Your task to perform on an android device: turn off data saver in the chrome app Image 0: 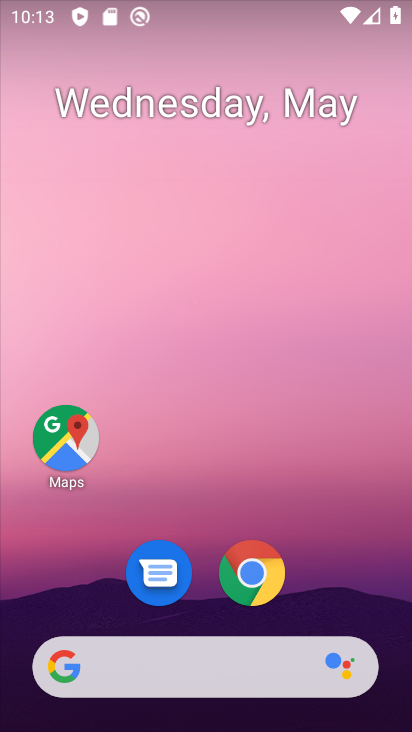
Step 0: drag from (373, 611) to (183, 158)
Your task to perform on an android device: turn off data saver in the chrome app Image 1: 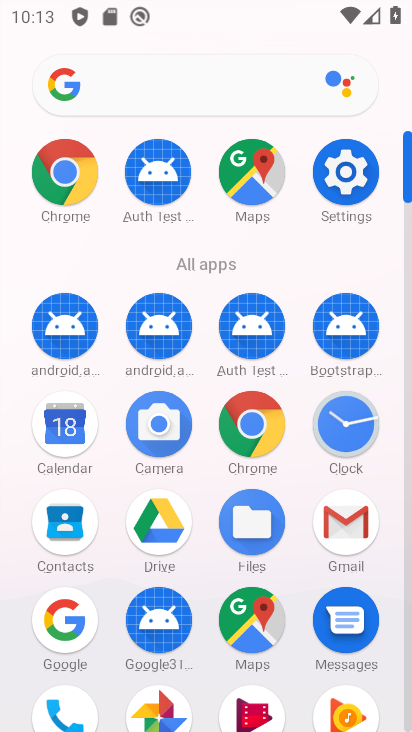
Step 1: click (248, 427)
Your task to perform on an android device: turn off data saver in the chrome app Image 2: 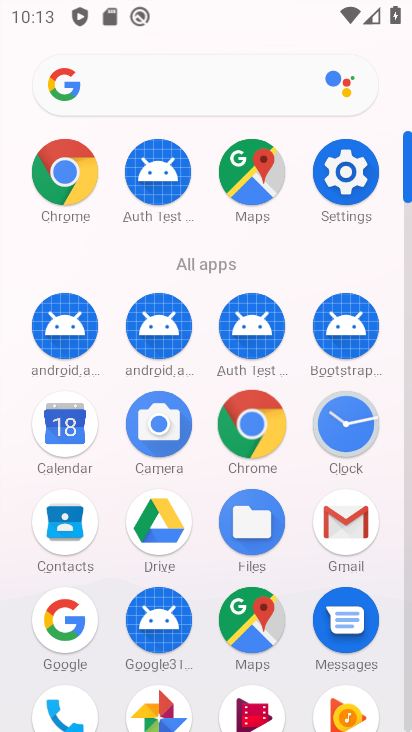
Step 2: click (249, 424)
Your task to perform on an android device: turn off data saver in the chrome app Image 3: 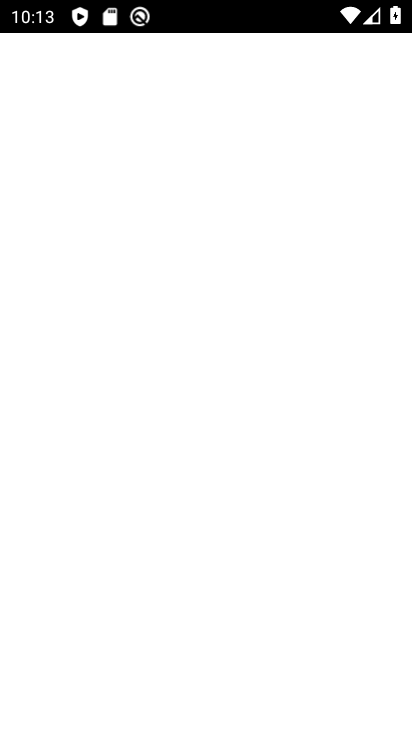
Step 3: click (249, 424)
Your task to perform on an android device: turn off data saver in the chrome app Image 4: 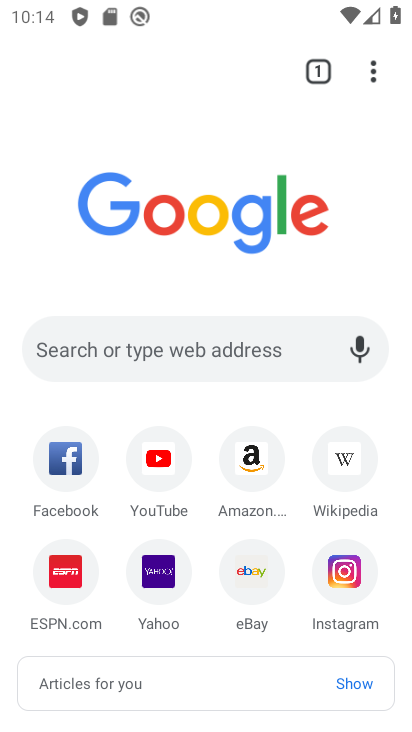
Step 4: click (364, 71)
Your task to perform on an android device: turn off data saver in the chrome app Image 5: 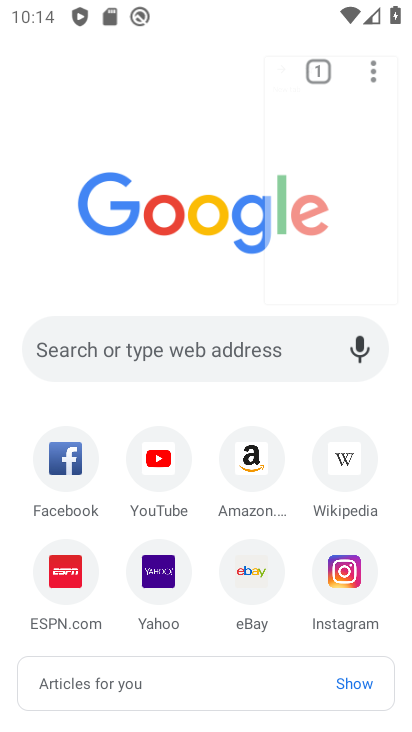
Step 5: click (365, 71)
Your task to perform on an android device: turn off data saver in the chrome app Image 6: 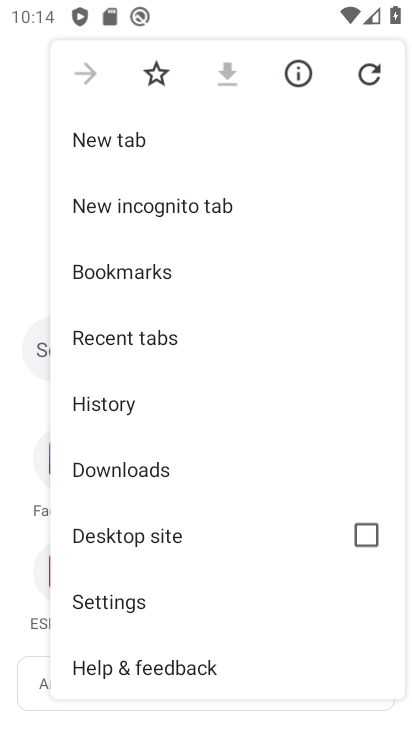
Step 6: click (106, 591)
Your task to perform on an android device: turn off data saver in the chrome app Image 7: 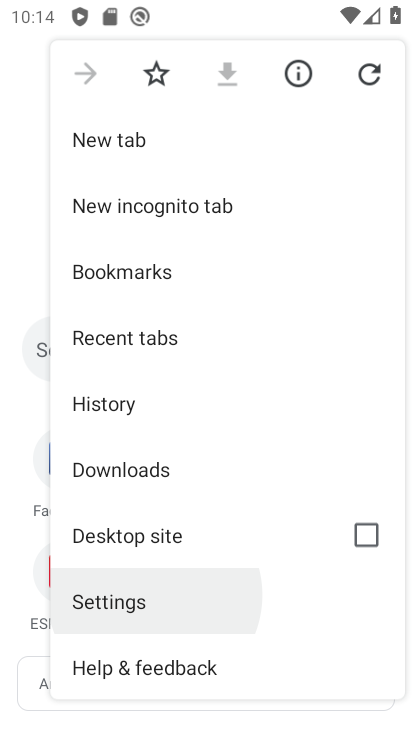
Step 7: click (106, 593)
Your task to perform on an android device: turn off data saver in the chrome app Image 8: 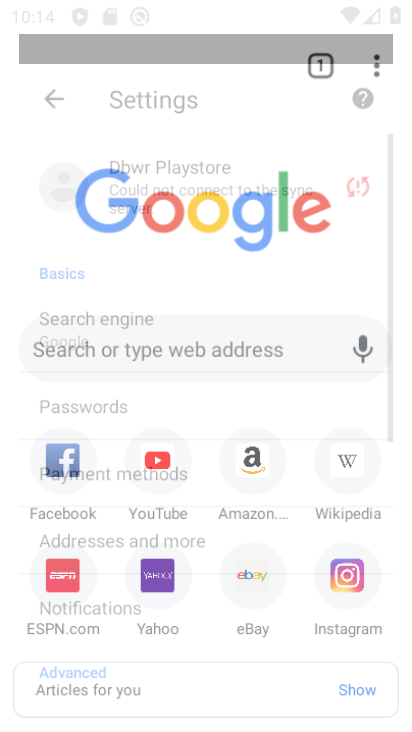
Step 8: click (103, 596)
Your task to perform on an android device: turn off data saver in the chrome app Image 9: 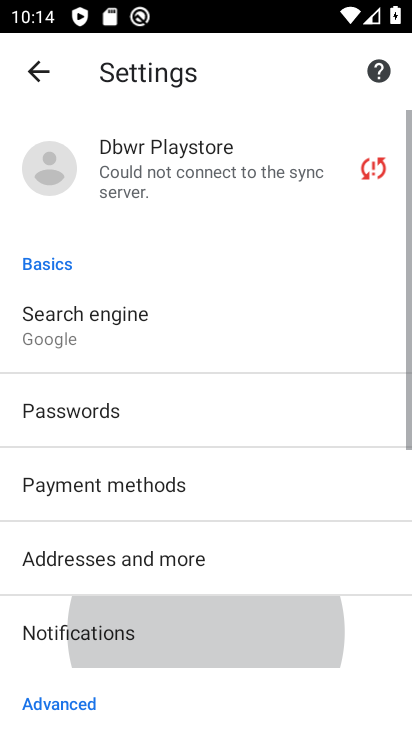
Step 9: click (102, 596)
Your task to perform on an android device: turn off data saver in the chrome app Image 10: 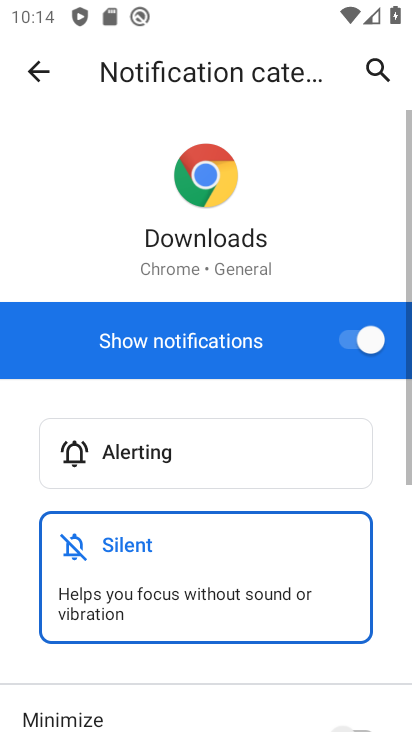
Step 10: click (38, 71)
Your task to perform on an android device: turn off data saver in the chrome app Image 11: 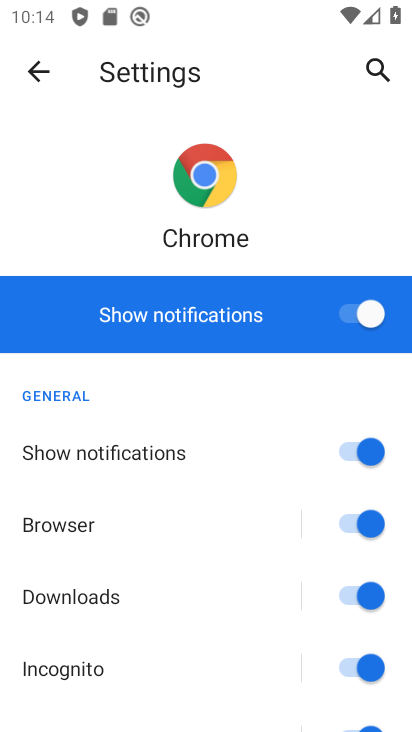
Step 11: click (37, 77)
Your task to perform on an android device: turn off data saver in the chrome app Image 12: 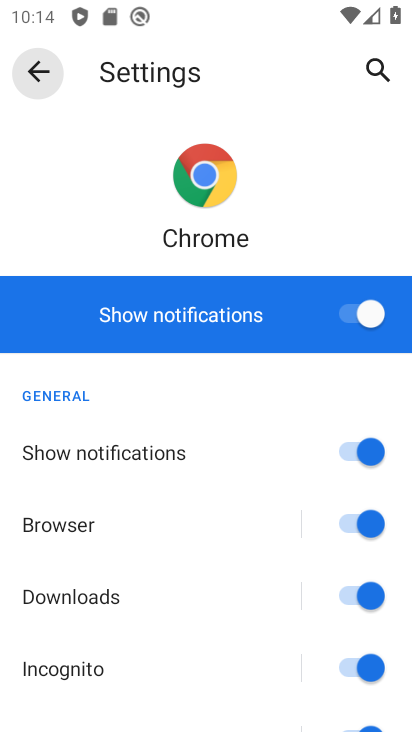
Step 12: click (37, 77)
Your task to perform on an android device: turn off data saver in the chrome app Image 13: 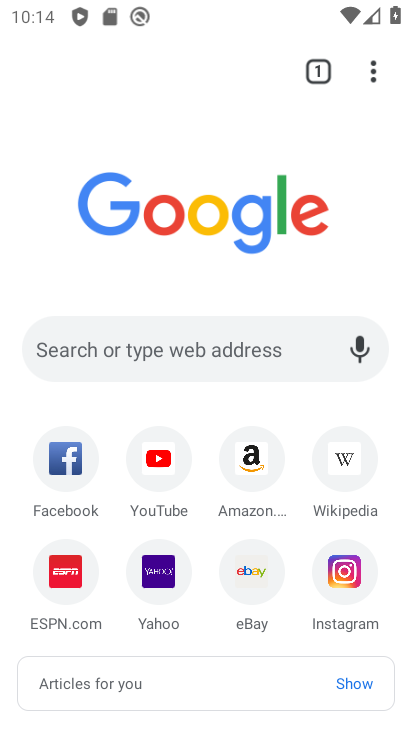
Step 13: drag from (188, 221) to (185, 1)
Your task to perform on an android device: turn off data saver in the chrome app Image 14: 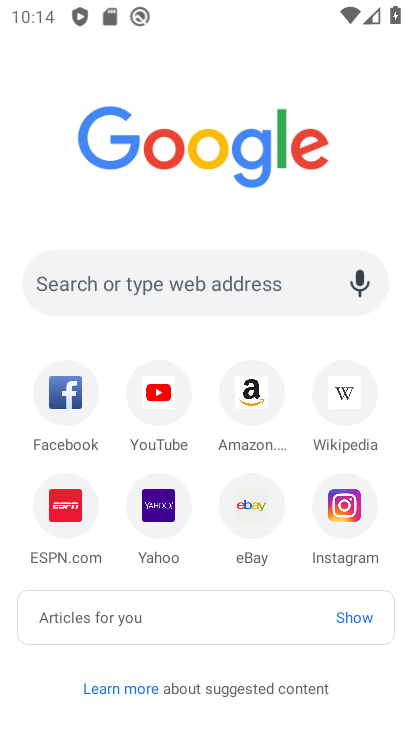
Step 14: drag from (222, 414) to (207, 205)
Your task to perform on an android device: turn off data saver in the chrome app Image 15: 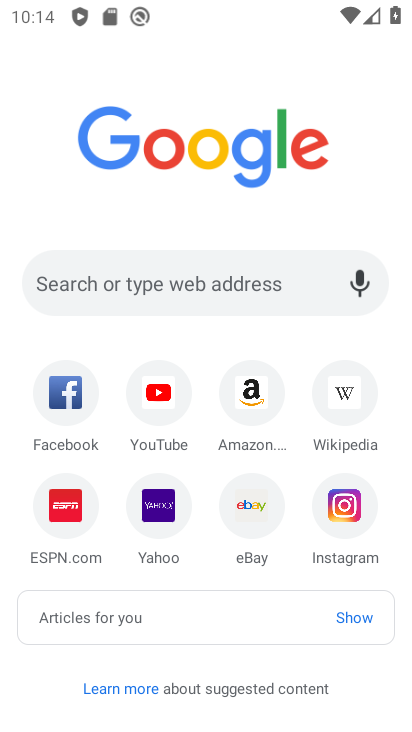
Step 15: drag from (201, 428) to (211, 124)
Your task to perform on an android device: turn off data saver in the chrome app Image 16: 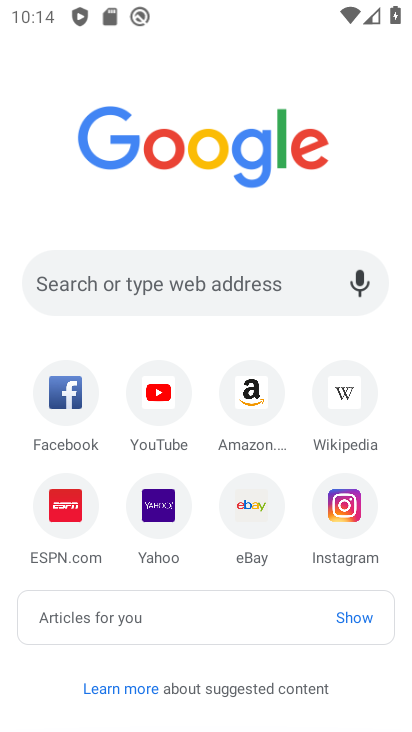
Step 16: drag from (249, 419) to (231, 110)
Your task to perform on an android device: turn off data saver in the chrome app Image 17: 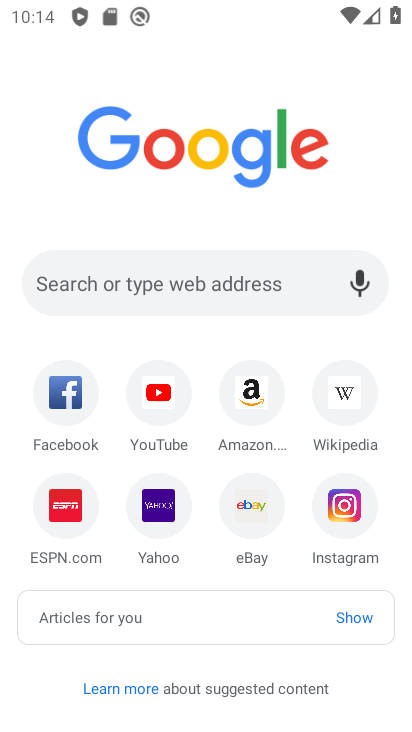
Step 17: drag from (267, 465) to (205, 200)
Your task to perform on an android device: turn off data saver in the chrome app Image 18: 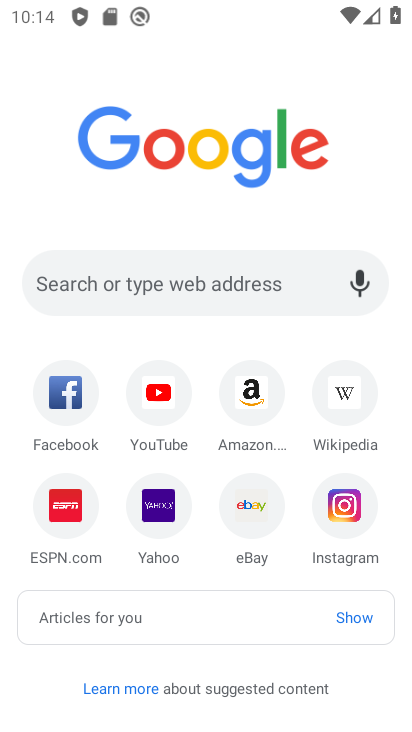
Step 18: drag from (186, 505) to (130, 114)
Your task to perform on an android device: turn off data saver in the chrome app Image 19: 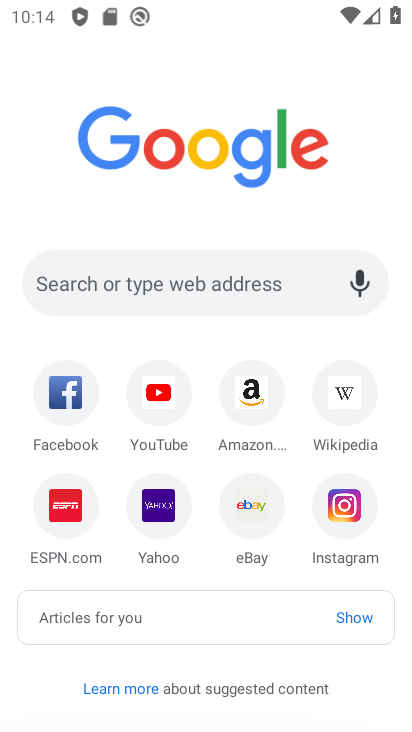
Step 19: drag from (203, 448) to (188, 98)
Your task to perform on an android device: turn off data saver in the chrome app Image 20: 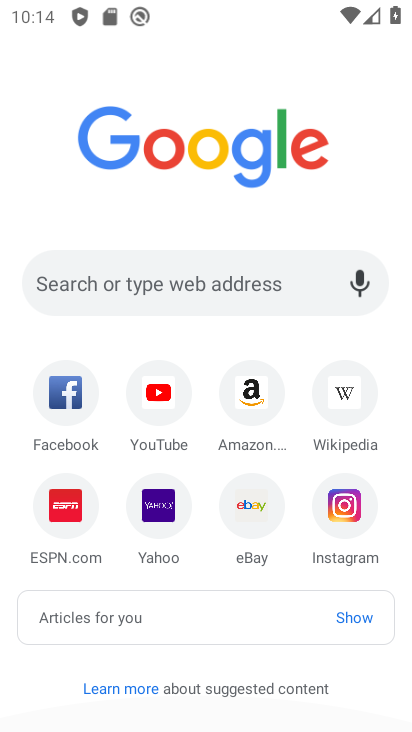
Step 20: drag from (214, 449) to (199, 0)
Your task to perform on an android device: turn off data saver in the chrome app Image 21: 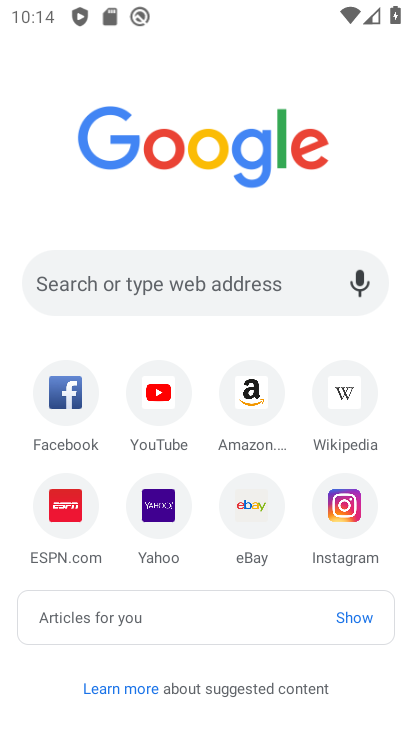
Step 21: drag from (274, 439) to (255, 97)
Your task to perform on an android device: turn off data saver in the chrome app Image 22: 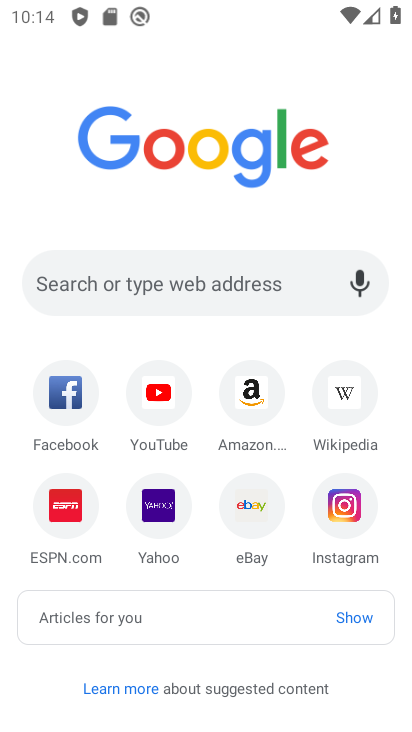
Step 22: drag from (272, 301) to (272, 104)
Your task to perform on an android device: turn off data saver in the chrome app Image 23: 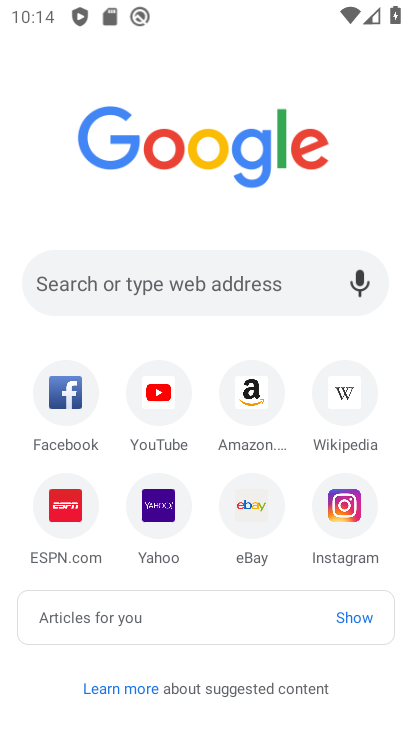
Step 23: drag from (275, 500) to (265, 151)
Your task to perform on an android device: turn off data saver in the chrome app Image 24: 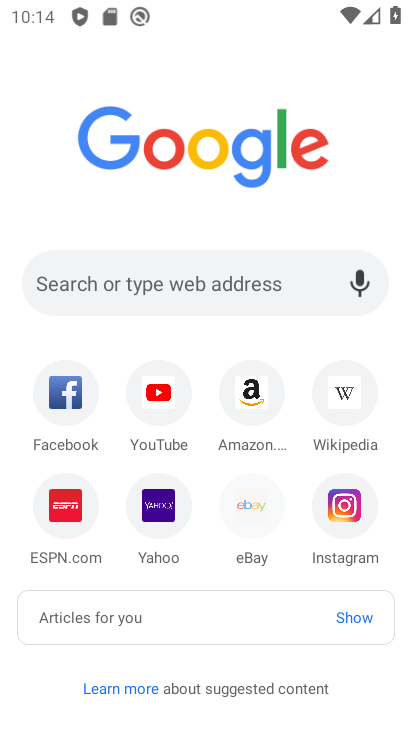
Step 24: click (263, 20)
Your task to perform on an android device: turn off data saver in the chrome app Image 25: 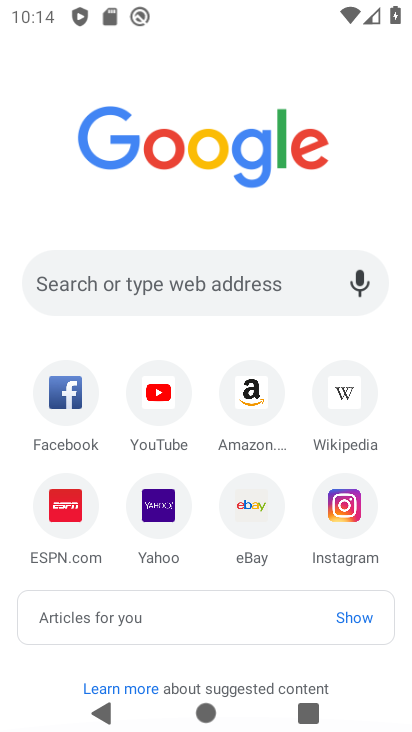
Step 25: drag from (272, 365) to (241, 55)
Your task to perform on an android device: turn off data saver in the chrome app Image 26: 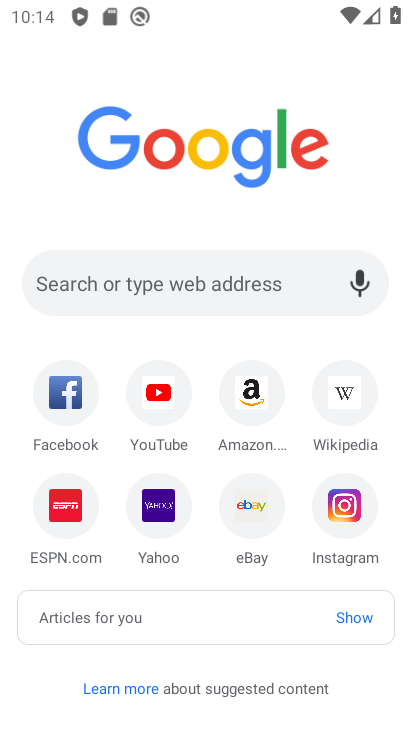
Step 26: drag from (281, 380) to (299, 64)
Your task to perform on an android device: turn off data saver in the chrome app Image 27: 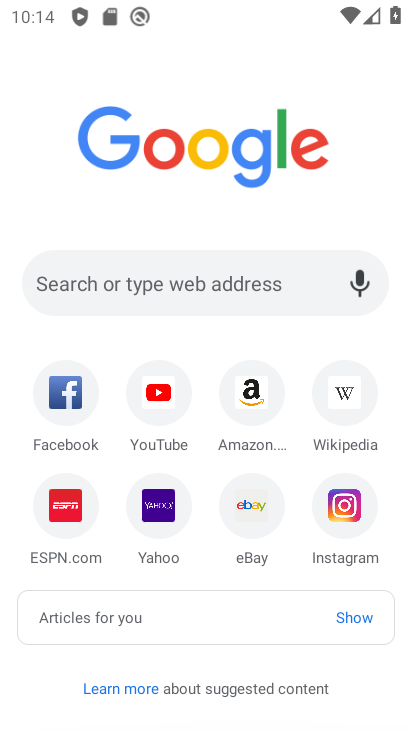
Step 27: drag from (282, 464) to (279, 123)
Your task to perform on an android device: turn off data saver in the chrome app Image 28: 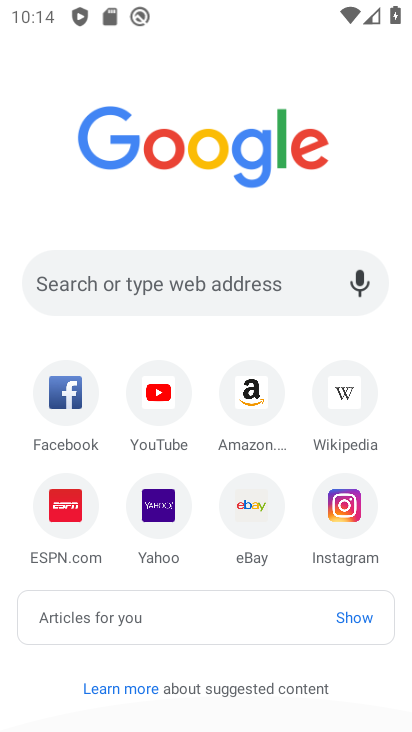
Step 28: drag from (296, 401) to (247, 111)
Your task to perform on an android device: turn off data saver in the chrome app Image 29: 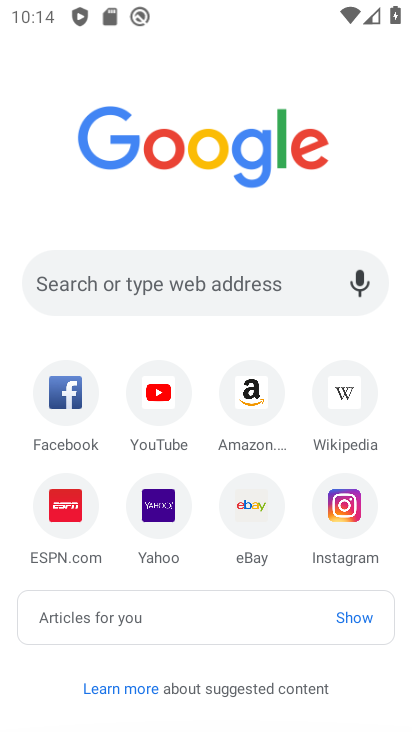
Step 29: drag from (292, 444) to (279, 61)
Your task to perform on an android device: turn off data saver in the chrome app Image 30: 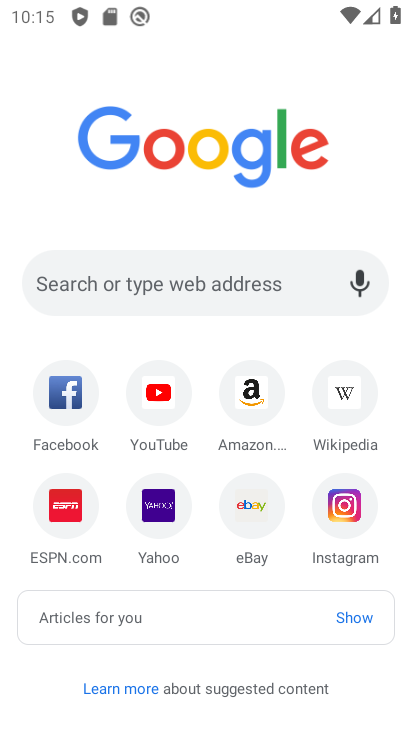
Step 30: drag from (273, 218) to (295, 498)
Your task to perform on an android device: turn off data saver in the chrome app Image 31: 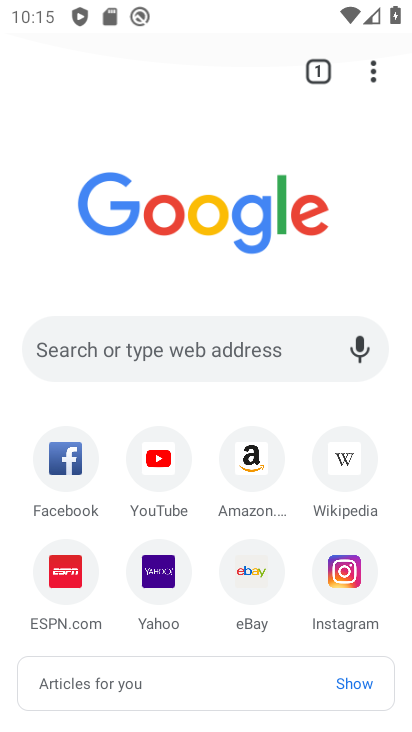
Step 31: drag from (250, 194) to (287, 483)
Your task to perform on an android device: turn off data saver in the chrome app Image 32: 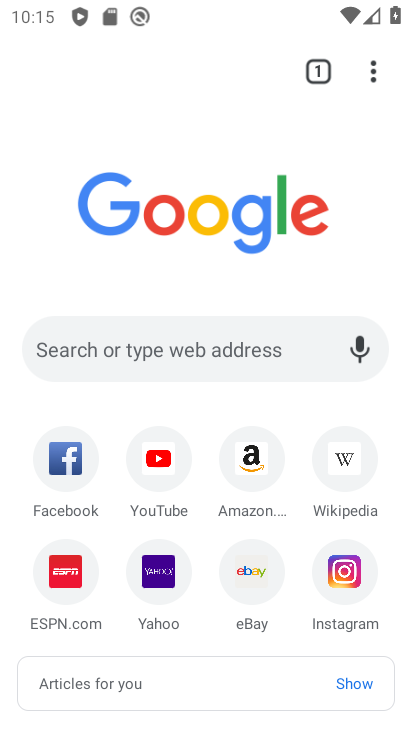
Step 32: drag from (368, 75) to (103, 592)
Your task to perform on an android device: turn off data saver in the chrome app Image 33: 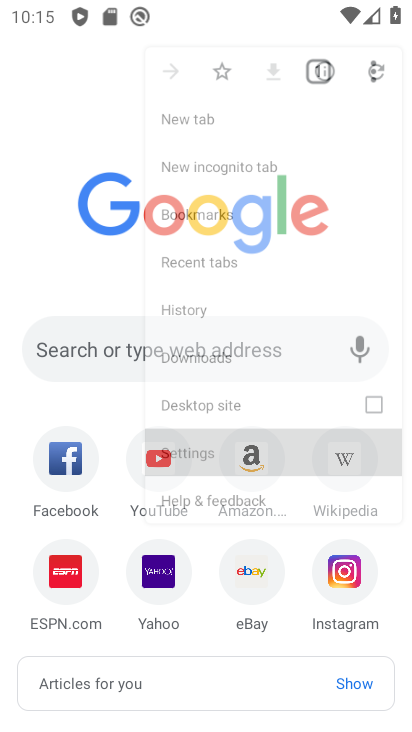
Step 33: click (102, 592)
Your task to perform on an android device: turn off data saver in the chrome app Image 34: 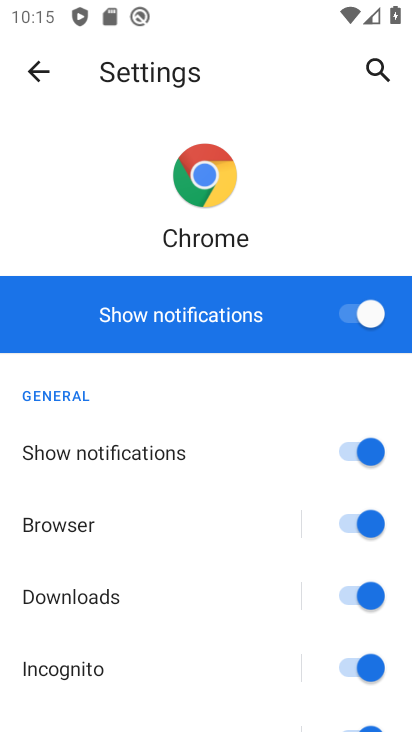
Step 34: click (27, 61)
Your task to perform on an android device: turn off data saver in the chrome app Image 35: 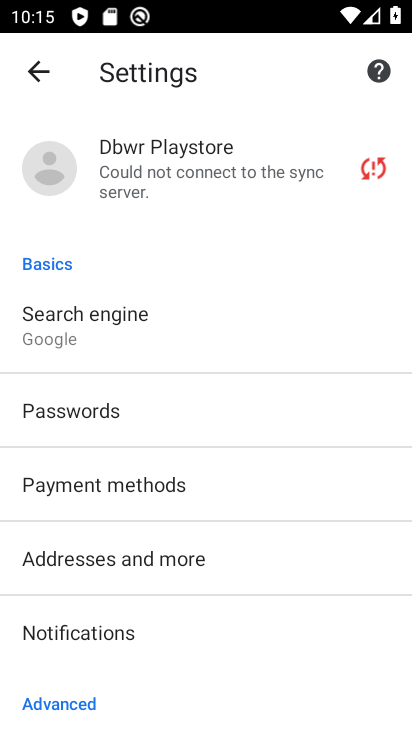
Step 35: drag from (88, 447) to (110, 75)
Your task to perform on an android device: turn off data saver in the chrome app Image 36: 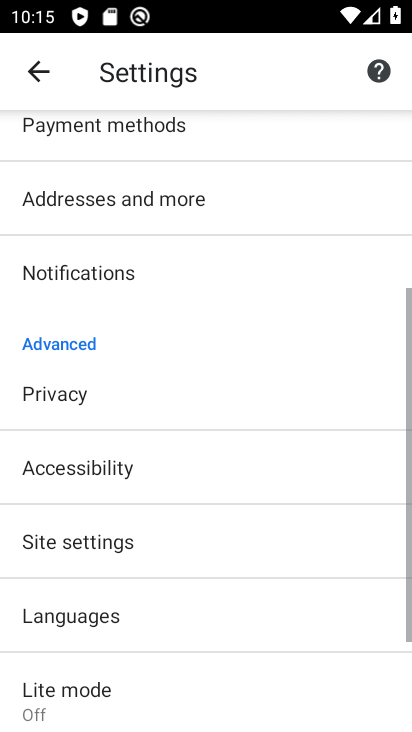
Step 36: drag from (160, 471) to (161, 213)
Your task to perform on an android device: turn off data saver in the chrome app Image 37: 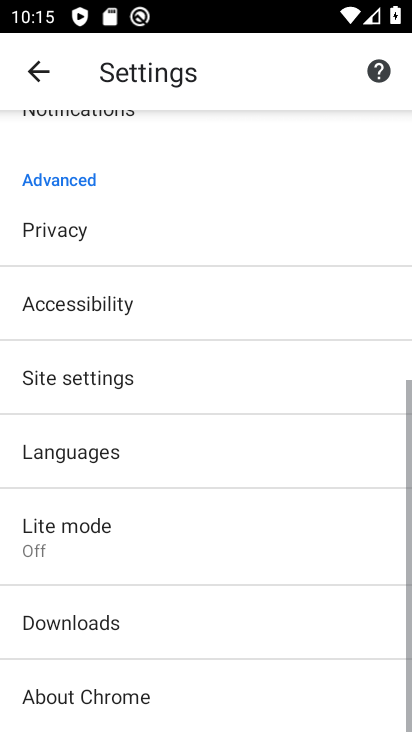
Step 37: drag from (155, 450) to (162, 158)
Your task to perform on an android device: turn off data saver in the chrome app Image 38: 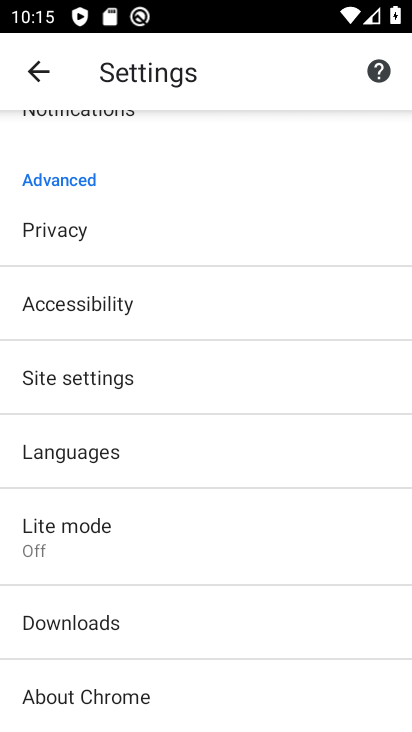
Step 38: click (58, 522)
Your task to perform on an android device: turn off data saver in the chrome app Image 39: 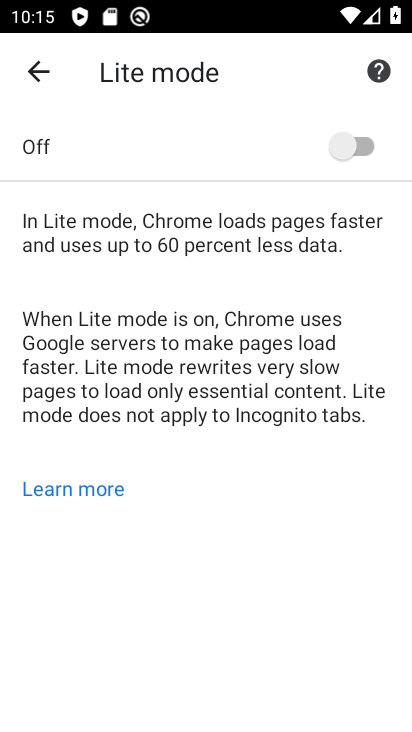
Step 39: click (60, 521)
Your task to perform on an android device: turn off data saver in the chrome app Image 40: 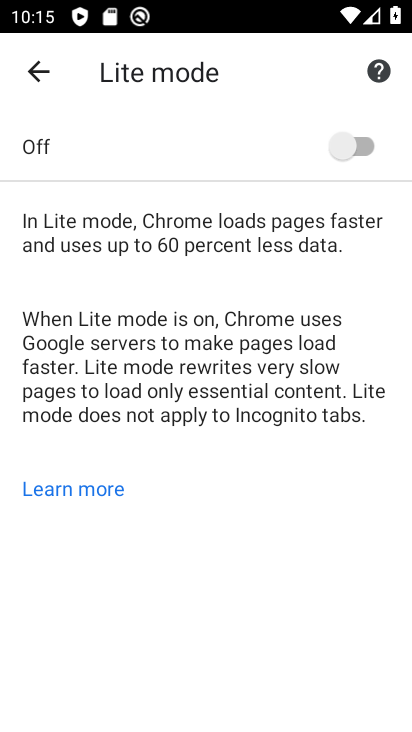
Step 40: click (63, 523)
Your task to perform on an android device: turn off data saver in the chrome app Image 41: 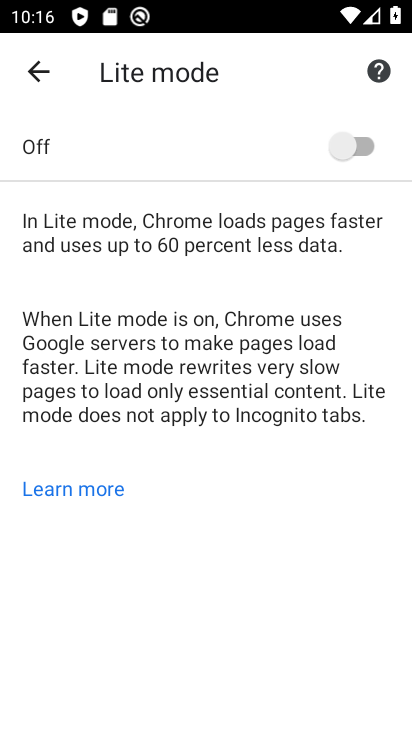
Step 41: task complete